Your task to perform on an android device: clear history in the chrome app Image 0: 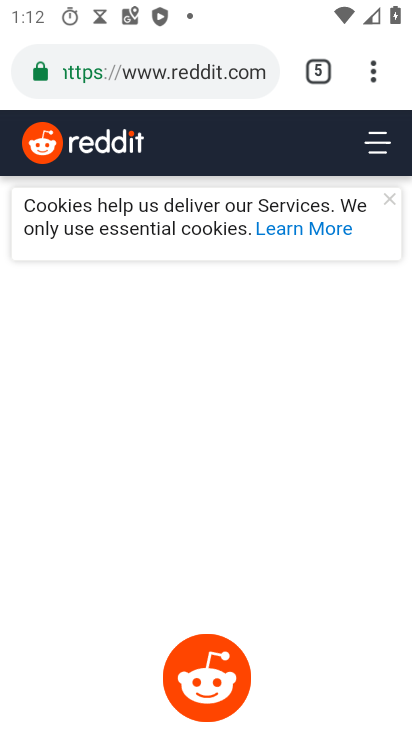
Step 0: press home button
Your task to perform on an android device: clear history in the chrome app Image 1: 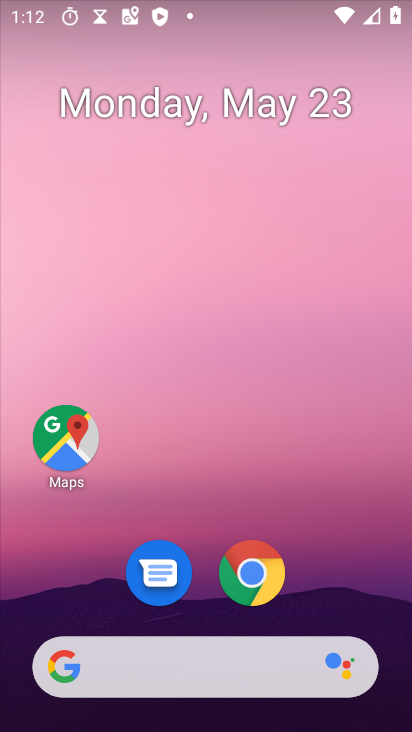
Step 1: click (245, 574)
Your task to perform on an android device: clear history in the chrome app Image 2: 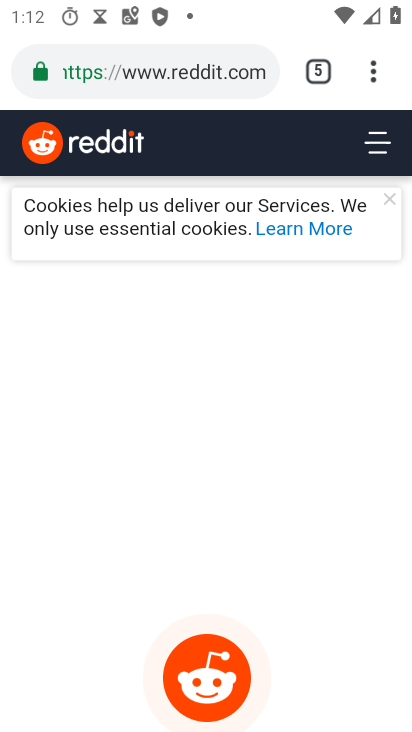
Step 2: drag from (373, 86) to (157, 409)
Your task to perform on an android device: clear history in the chrome app Image 3: 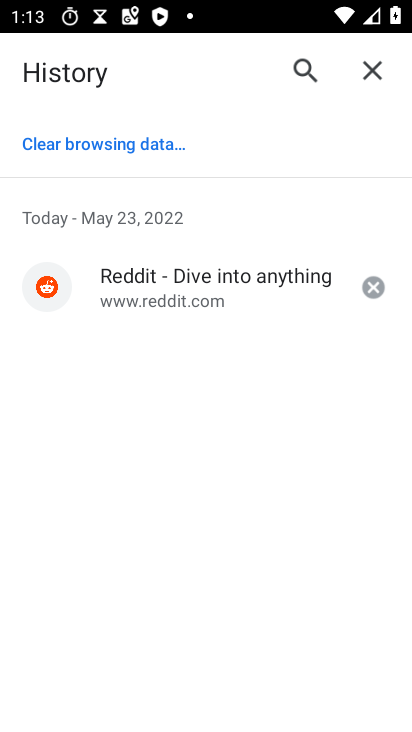
Step 3: click (105, 139)
Your task to perform on an android device: clear history in the chrome app Image 4: 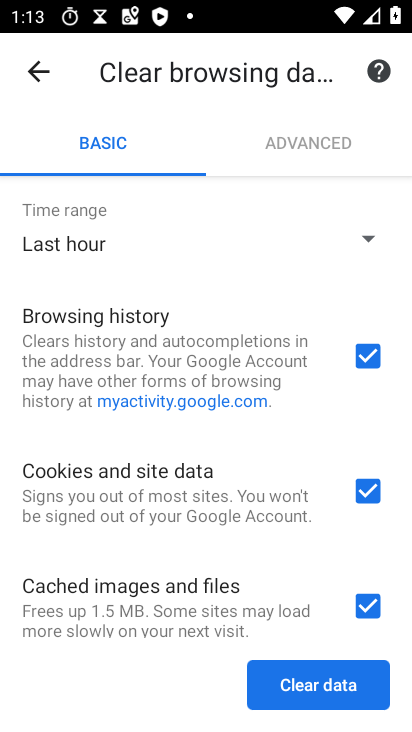
Step 4: drag from (236, 619) to (369, 140)
Your task to perform on an android device: clear history in the chrome app Image 5: 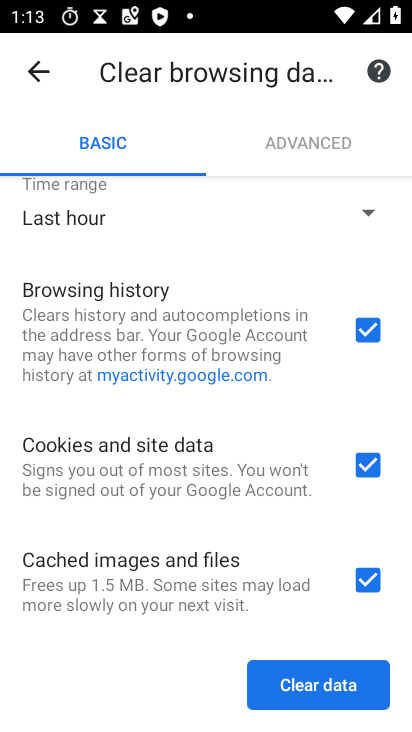
Step 5: click (324, 685)
Your task to perform on an android device: clear history in the chrome app Image 6: 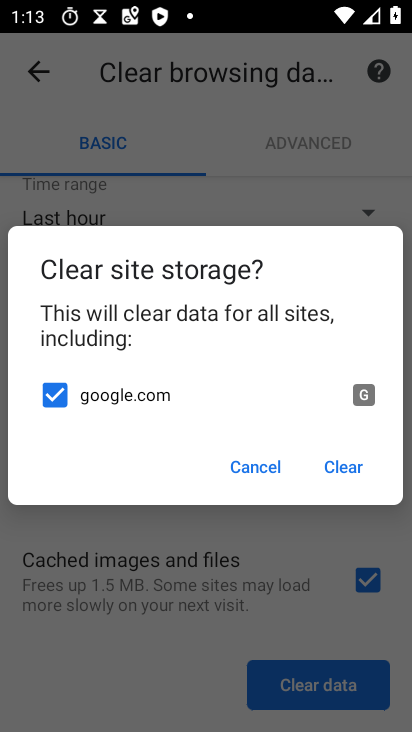
Step 6: click (351, 469)
Your task to perform on an android device: clear history in the chrome app Image 7: 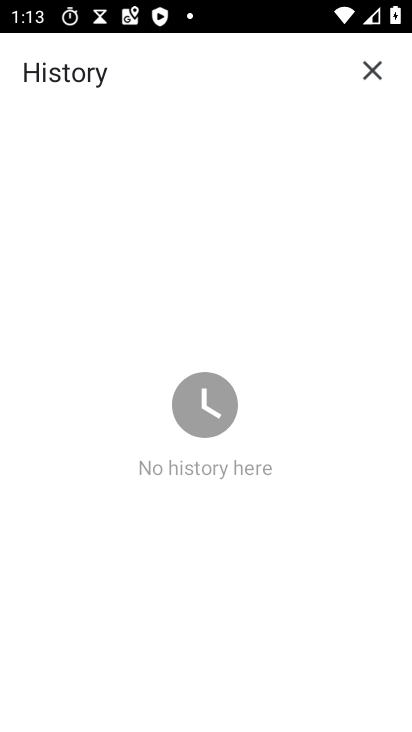
Step 7: task complete